Your task to perform on an android device: Do I have any events this weekend? Image 0: 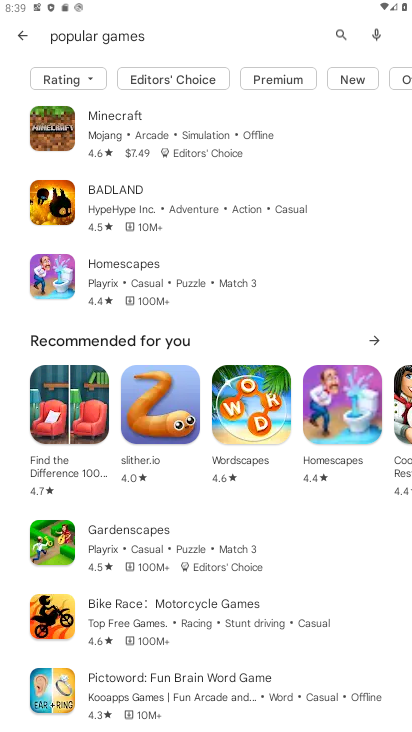
Step 0: press home button
Your task to perform on an android device: Do I have any events this weekend? Image 1: 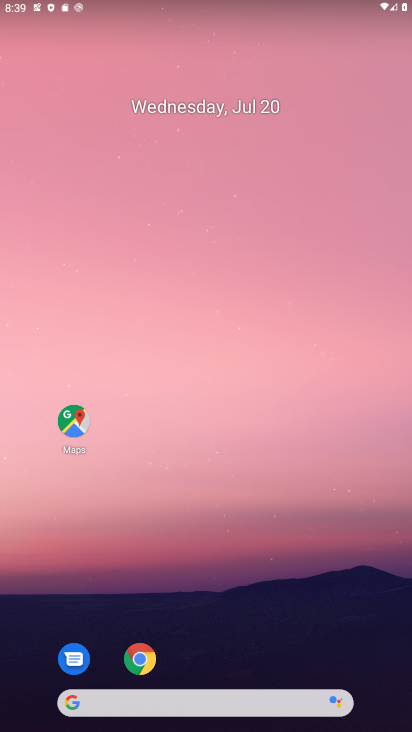
Step 1: drag from (320, 625) to (322, 68)
Your task to perform on an android device: Do I have any events this weekend? Image 2: 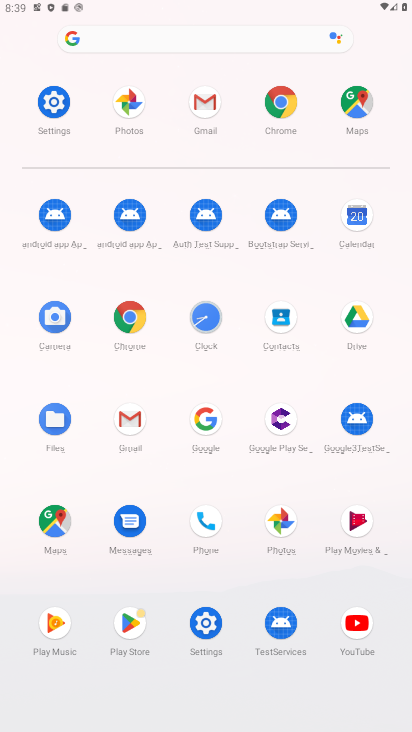
Step 2: click (363, 216)
Your task to perform on an android device: Do I have any events this weekend? Image 3: 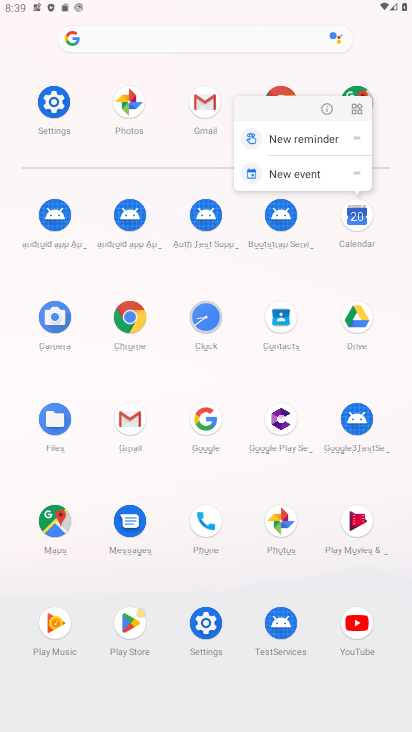
Step 3: click (354, 216)
Your task to perform on an android device: Do I have any events this weekend? Image 4: 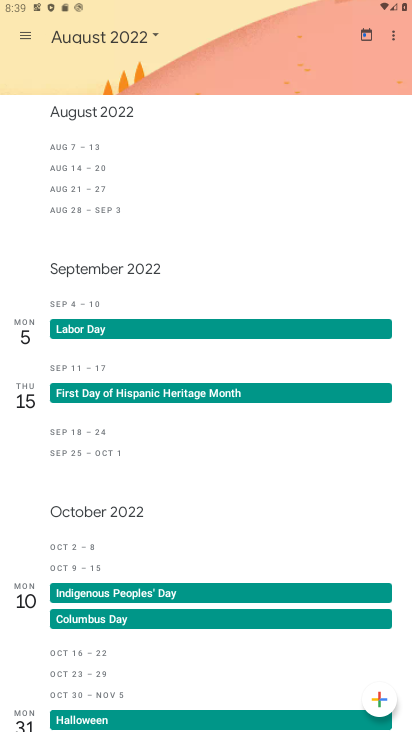
Step 4: click (217, 59)
Your task to perform on an android device: Do I have any events this weekend? Image 5: 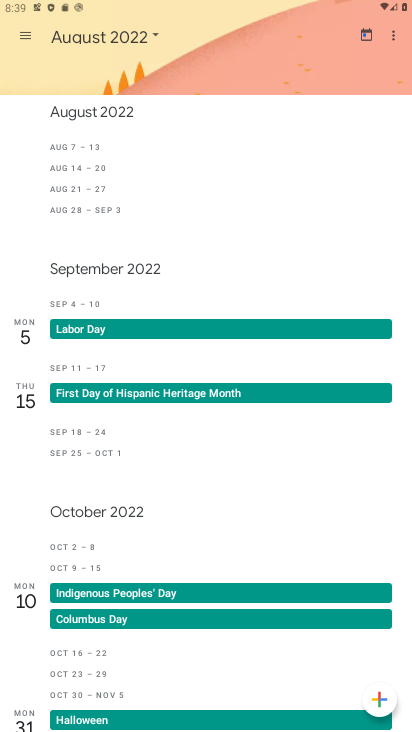
Step 5: click (145, 32)
Your task to perform on an android device: Do I have any events this weekend? Image 6: 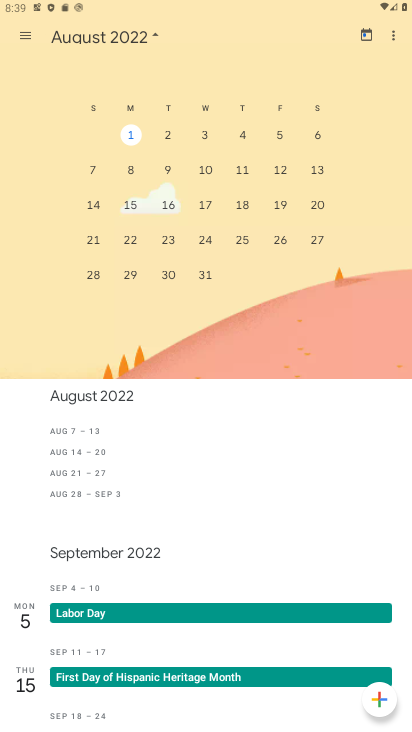
Step 6: drag from (50, 171) to (374, 221)
Your task to perform on an android device: Do I have any events this weekend? Image 7: 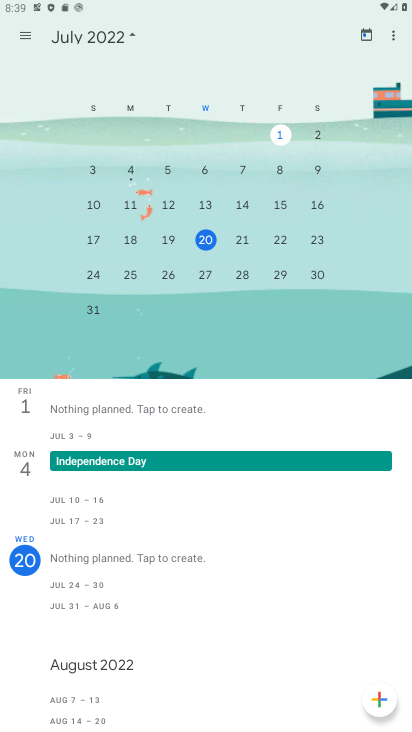
Step 7: click (244, 232)
Your task to perform on an android device: Do I have any events this weekend? Image 8: 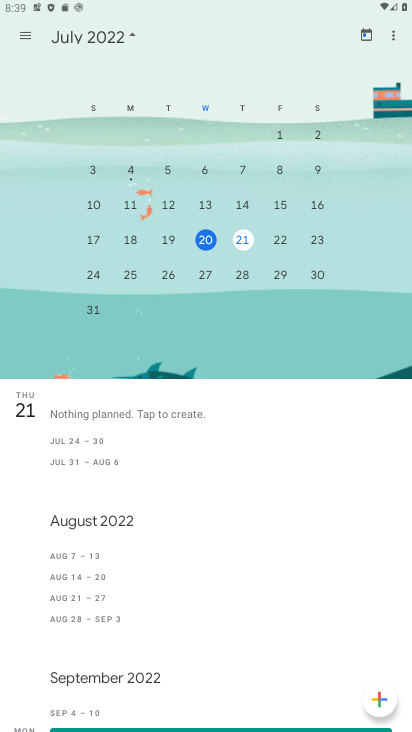
Step 8: task complete